Your task to perform on an android device: open a bookmark in the chrome app Image 0: 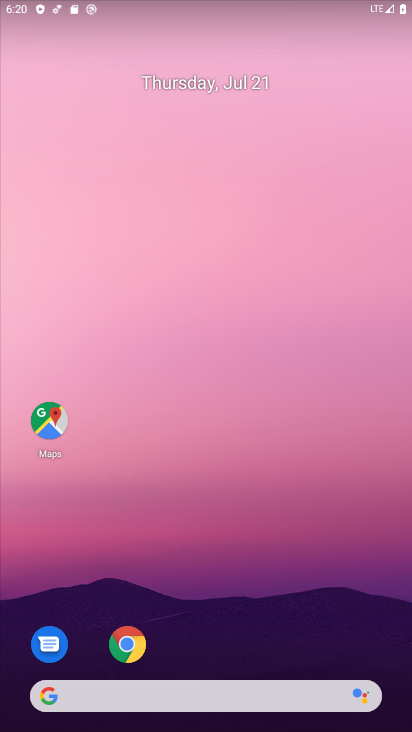
Step 0: click (137, 652)
Your task to perform on an android device: open a bookmark in the chrome app Image 1: 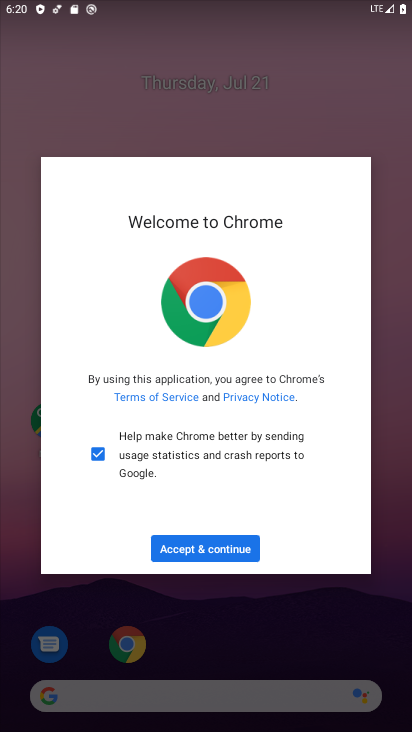
Step 1: click (235, 551)
Your task to perform on an android device: open a bookmark in the chrome app Image 2: 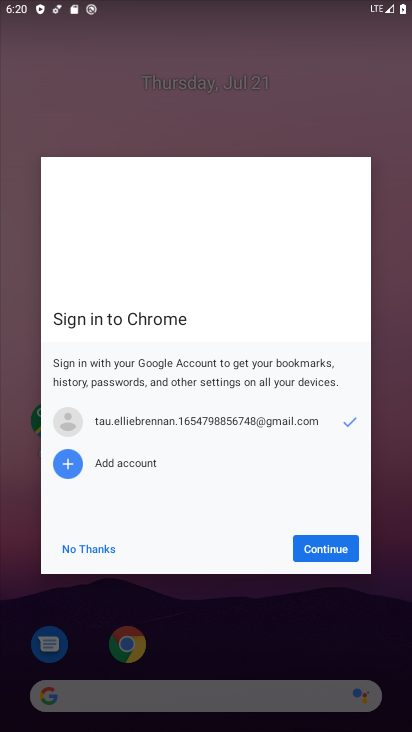
Step 2: click (337, 547)
Your task to perform on an android device: open a bookmark in the chrome app Image 3: 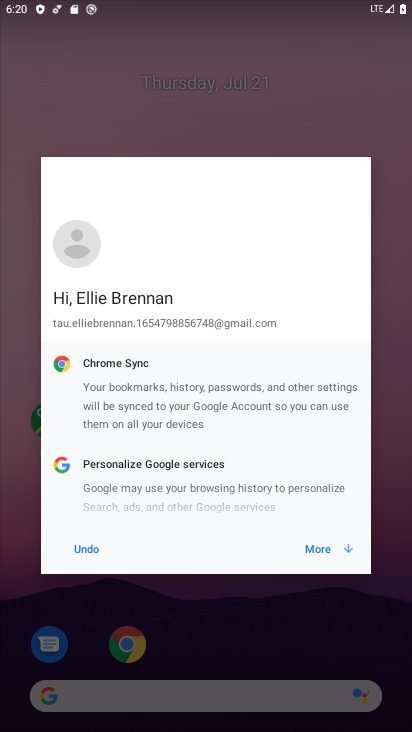
Step 3: click (337, 547)
Your task to perform on an android device: open a bookmark in the chrome app Image 4: 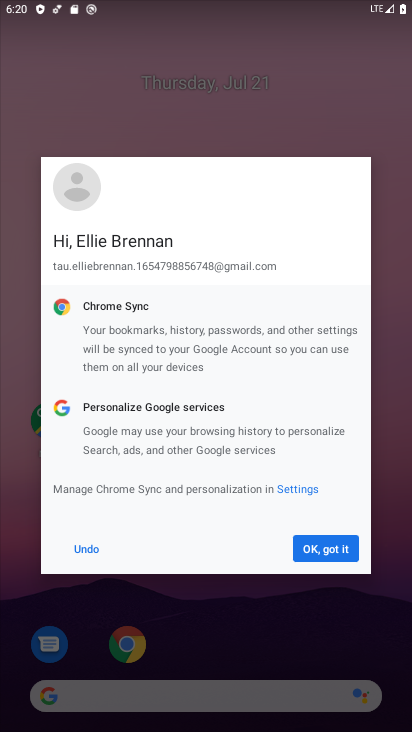
Step 4: click (337, 547)
Your task to perform on an android device: open a bookmark in the chrome app Image 5: 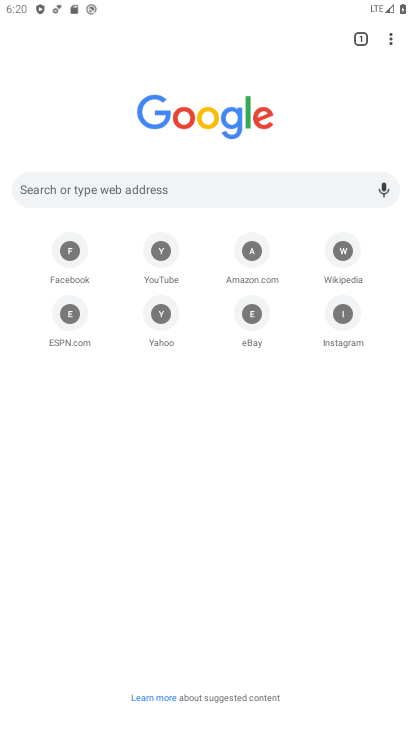
Step 5: click (390, 39)
Your task to perform on an android device: open a bookmark in the chrome app Image 6: 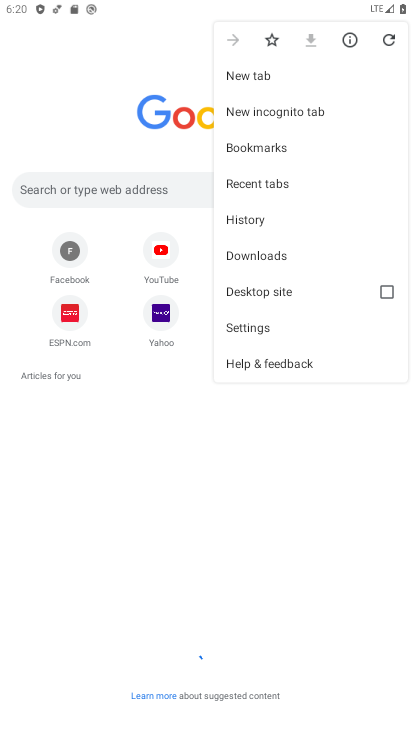
Step 6: click (268, 145)
Your task to perform on an android device: open a bookmark in the chrome app Image 7: 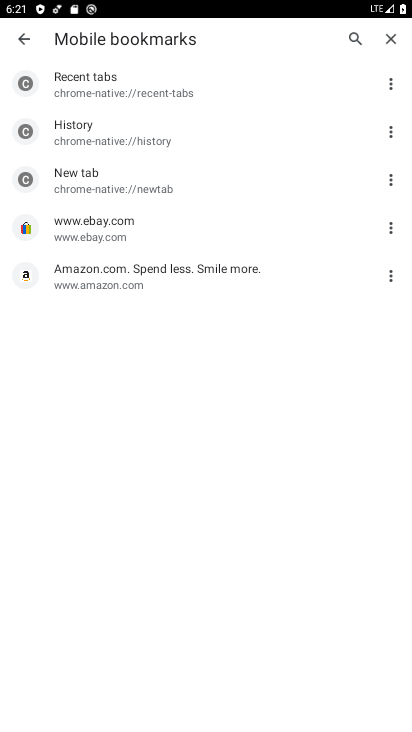
Step 7: click (159, 223)
Your task to perform on an android device: open a bookmark in the chrome app Image 8: 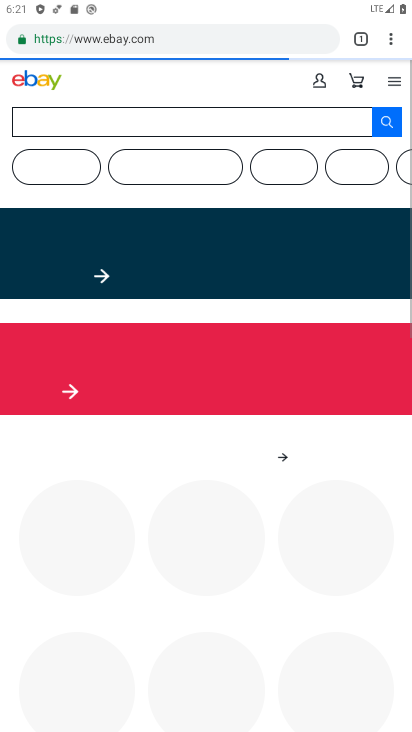
Step 8: task complete